Your task to perform on an android device: open sync settings in chrome Image 0: 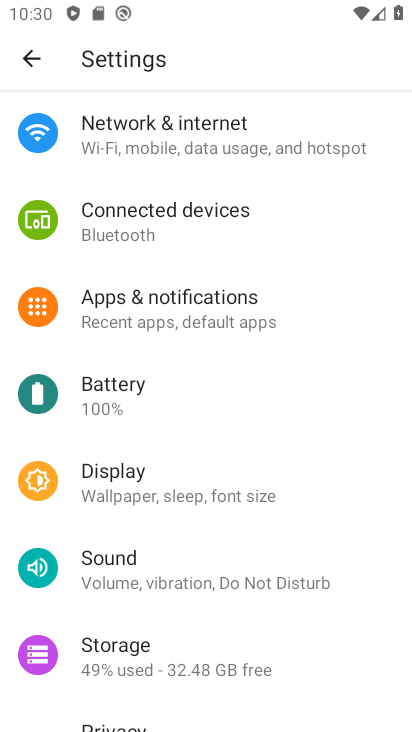
Step 0: press home button
Your task to perform on an android device: open sync settings in chrome Image 1: 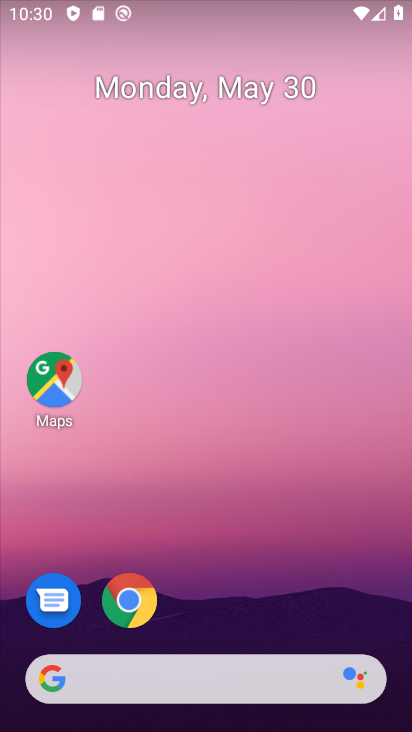
Step 1: drag from (203, 619) to (256, 69)
Your task to perform on an android device: open sync settings in chrome Image 2: 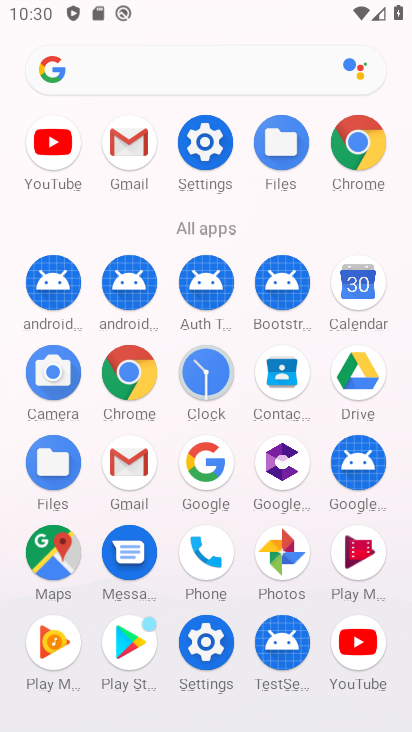
Step 2: click (126, 371)
Your task to perform on an android device: open sync settings in chrome Image 3: 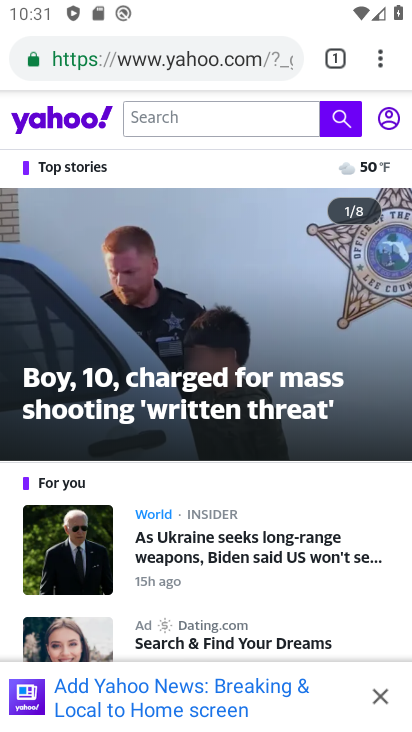
Step 3: click (379, 58)
Your task to perform on an android device: open sync settings in chrome Image 4: 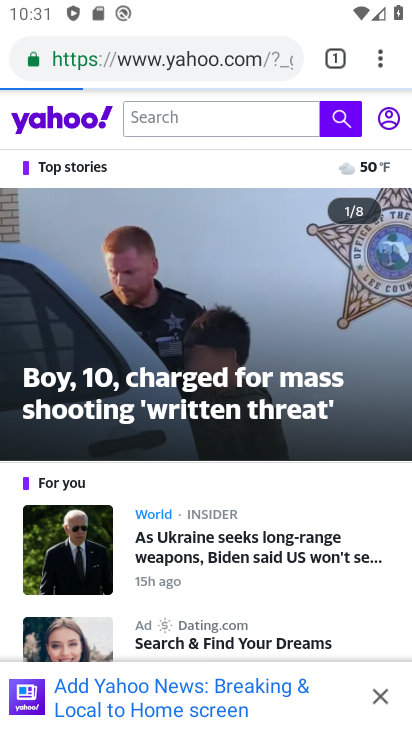
Step 4: drag from (379, 58) to (187, 622)
Your task to perform on an android device: open sync settings in chrome Image 5: 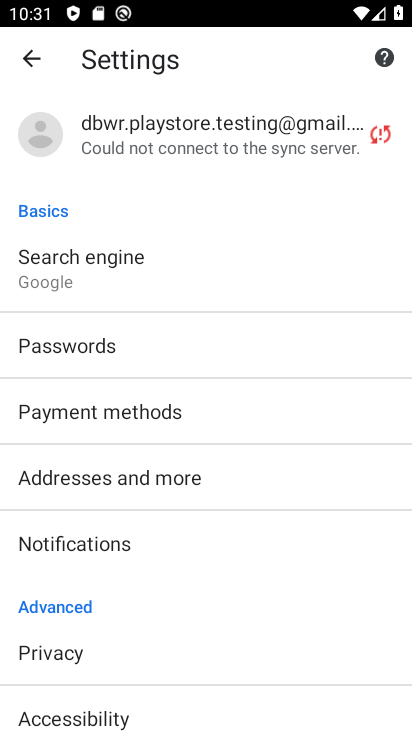
Step 5: click (57, 135)
Your task to perform on an android device: open sync settings in chrome Image 6: 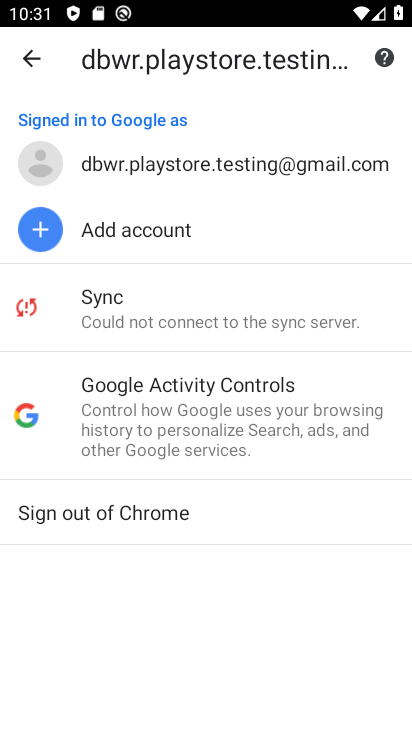
Step 6: click (112, 303)
Your task to perform on an android device: open sync settings in chrome Image 7: 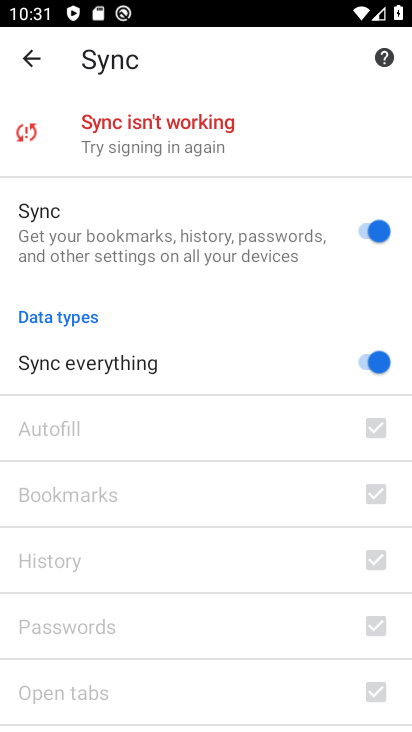
Step 7: task complete